Your task to perform on an android device: add a label to a message in the gmail app Image 0: 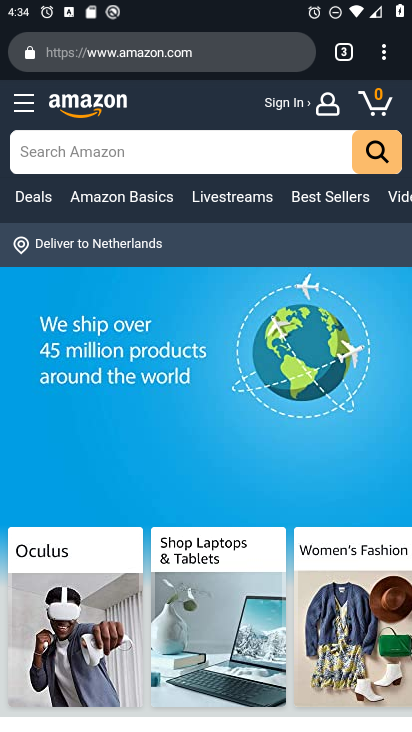
Step 0: press home button
Your task to perform on an android device: add a label to a message in the gmail app Image 1: 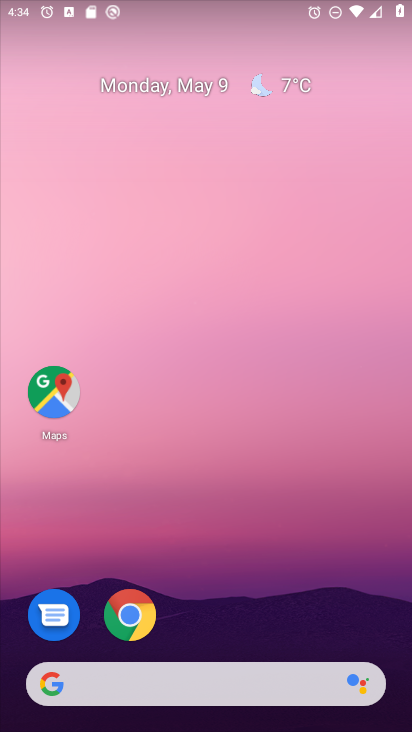
Step 1: drag from (390, 630) to (331, 170)
Your task to perform on an android device: add a label to a message in the gmail app Image 2: 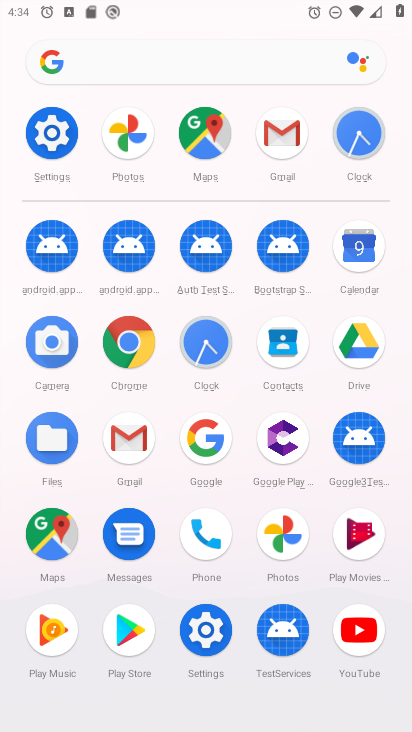
Step 2: click (130, 439)
Your task to perform on an android device: add a label to a message in the gmail app Image 3: 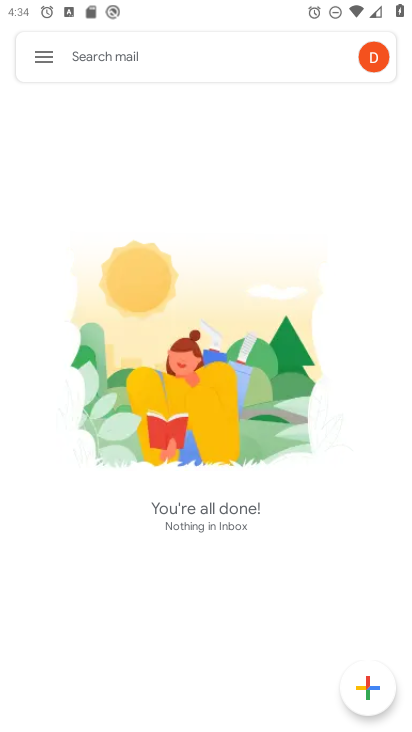
Step 3: click (43, 48)
Your task to perform on an android device: add a label to a message in the gmail app Image 4: 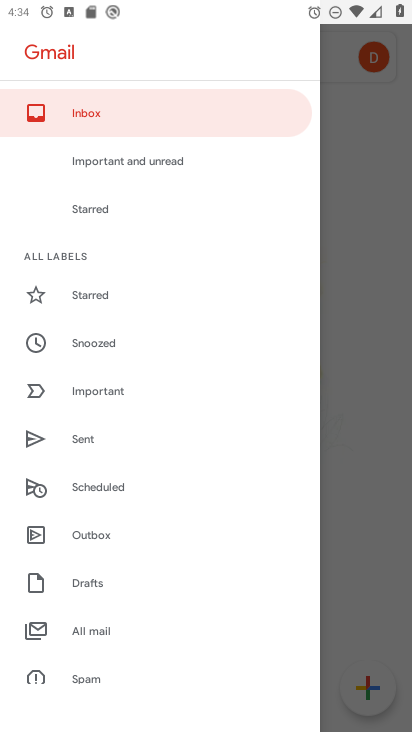
Step 4: click (92, 628)
Your task to perform on an android device: add a label to a message in the gmail app Image 5: 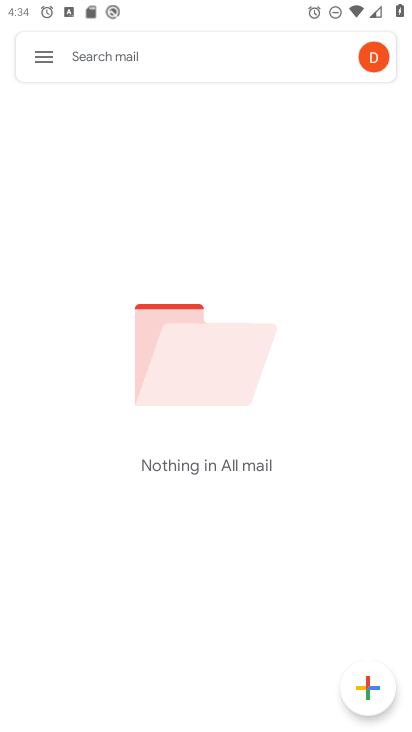
Step 5: task complete